Your task to perform on an android device: Go to CNN.com Image 0: 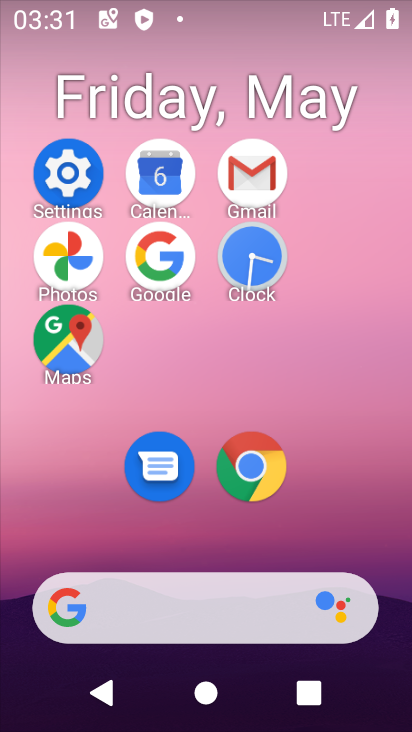
Step 0: click (80, 177)
Your task to perform on an android device: Go to CNN.com Image 1: 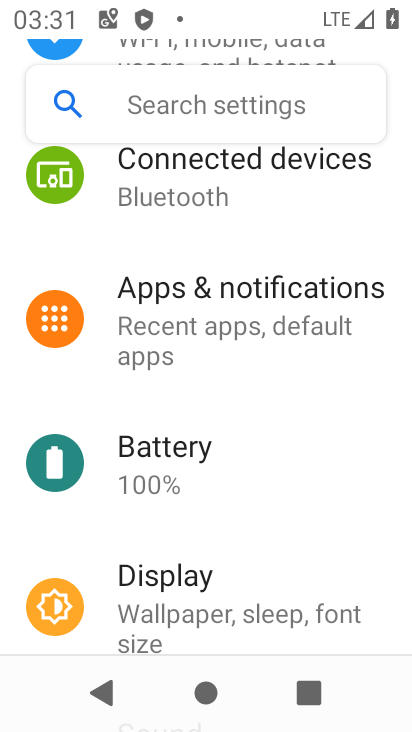
Step 1: drag from (323, 196) to (402, 568)
Your task to perform on an android device: Go to CNN.com Image 2: 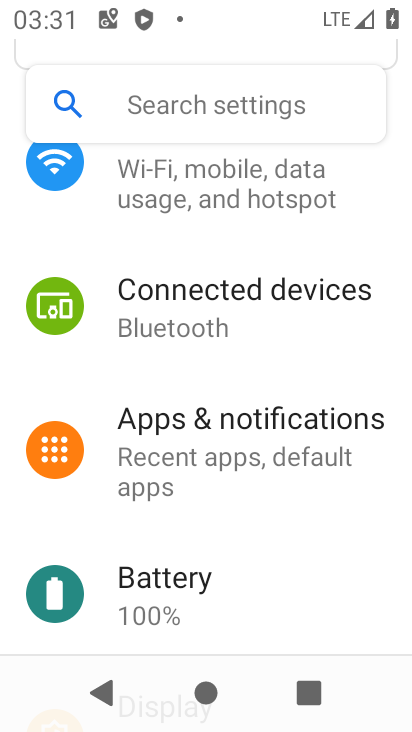
Step 2: press home button
Your task to perform on an android device: Go to CNN.com Image 3: 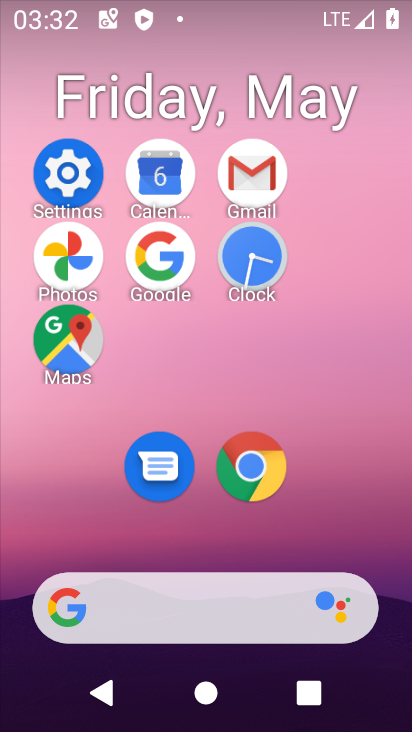
Step 3: click (263, 466)
Your task to perform on an android device: Go to CNN.com Image 4: 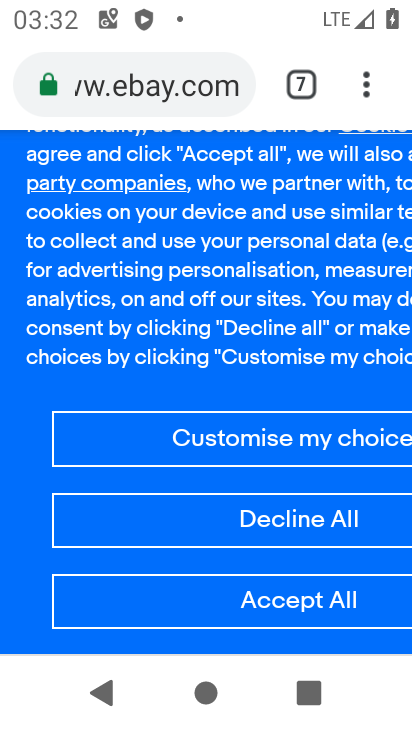
Step 4: click (309, 97)
Your task to perform on an android device: Go to CNN.com Image 5: 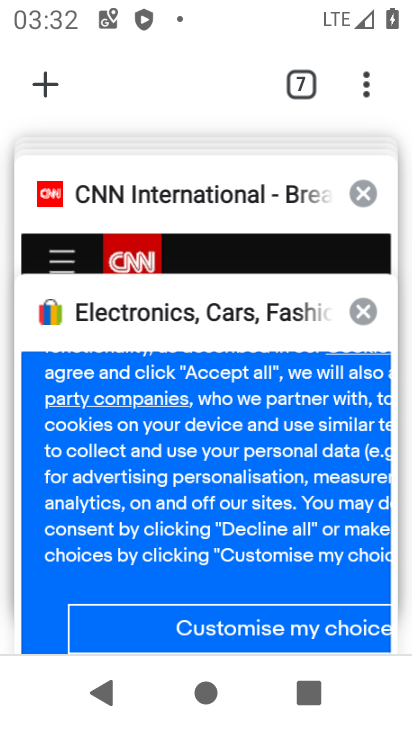
Step 5: click (204, 229)
Your task to perform on an android device: Go to CNN.com Image 6: 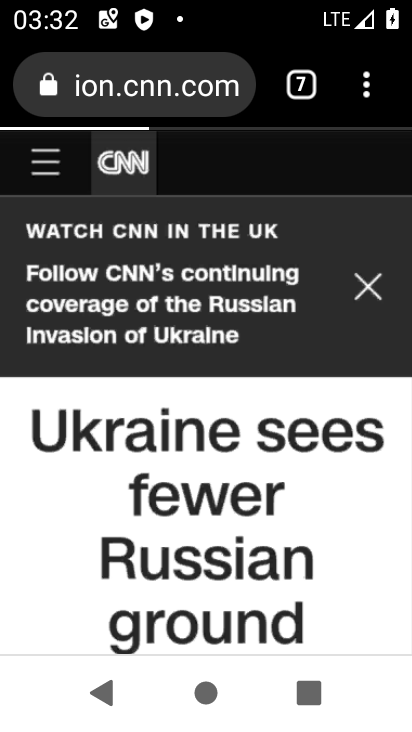
Step 6: task complete